Your task to perform on an android device: open app "Microsoft Outlook" (install if not already installed) and enter user name: "brand@gmail.com" and password: "persuasiveness" Image 0: 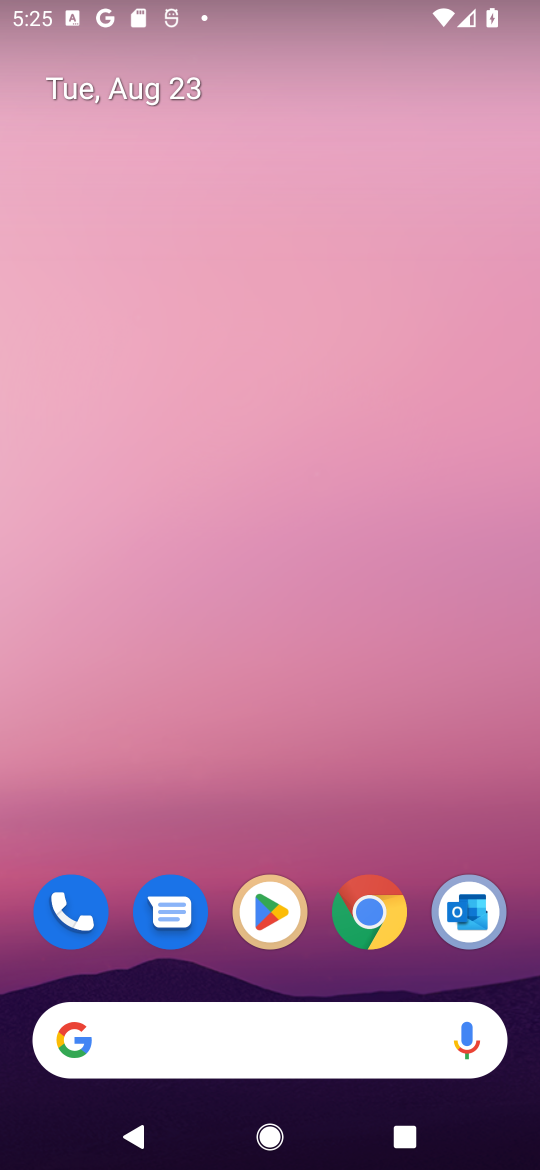
Step 0: drag from (205, 859) to (209, 278)
Your task to perform on an android device: open app "Microsoft Outlook" (install if not already installed) and enter user name: "brand@gmail.com" and password: "persuasiveness" Image 1: 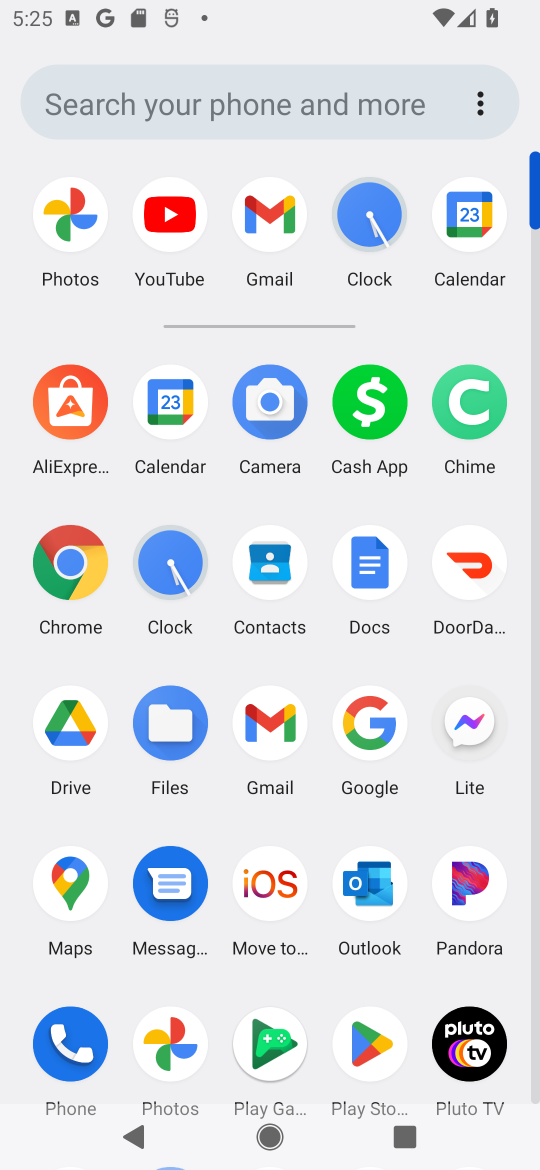
Step 1: click (386, 1039)
Your task to perform on an android device: open app "Microsoft Outlook" (install if not already installed) and enter user name: "brand@gmail.com" and password: "persuasiveness" Image 2: 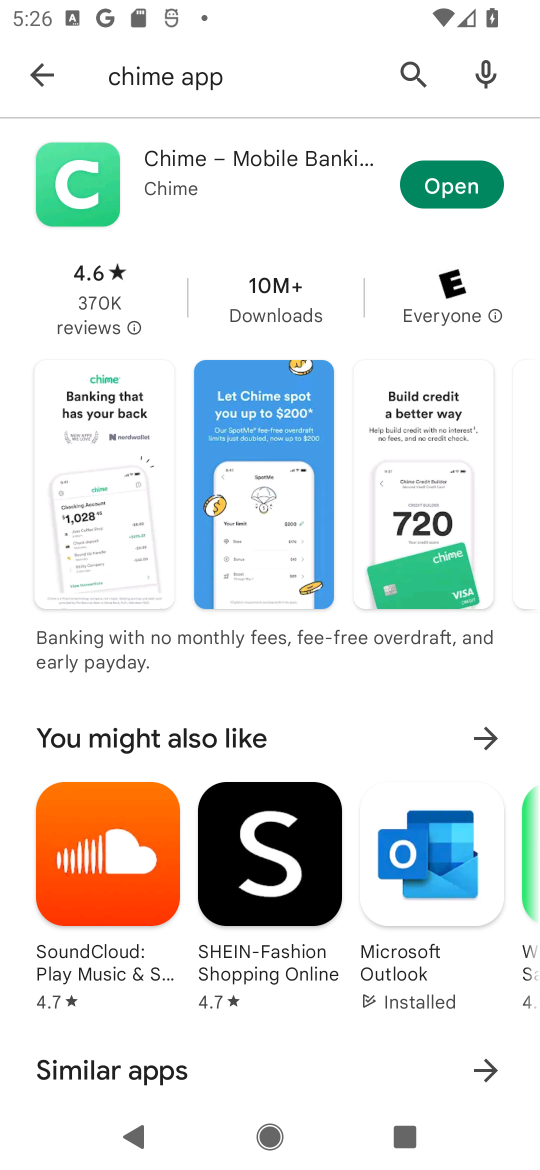
Step 2: click (31, 52)
Your task to perform on an android device: open app "Microsoft Outlook" (install if not already installed) and enter user name: "brand@gmail.com" and password: "persuasiveness" Image 3: 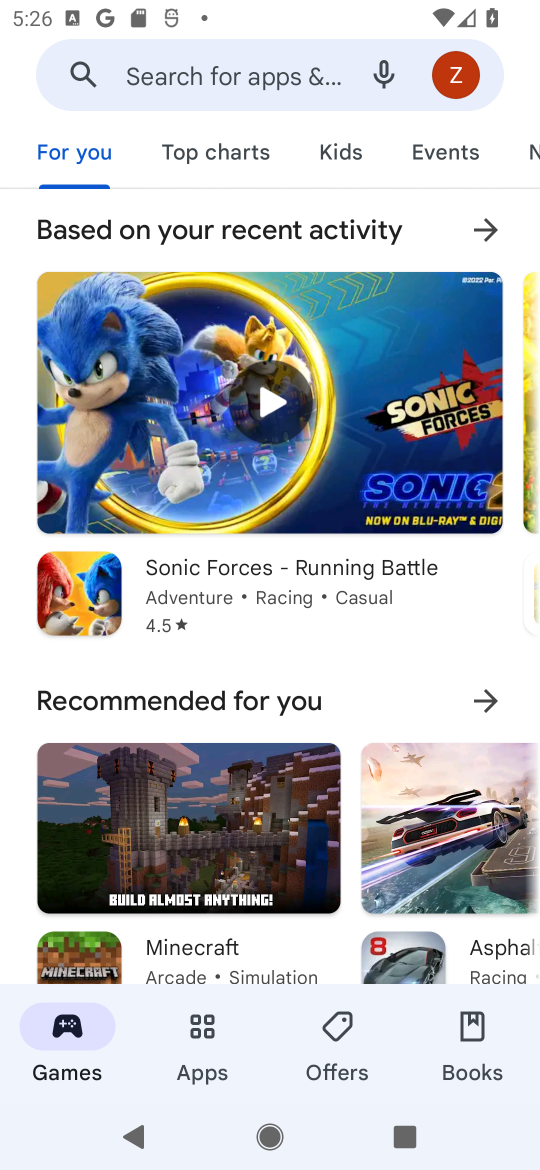
Step 3: click (142, 70)
Your task to perform on an android device: open app "Microsoft Outlook" (install if not already installed) and enter user name: "brand@gmail.com" and password: "persuasiveness" Image 4: 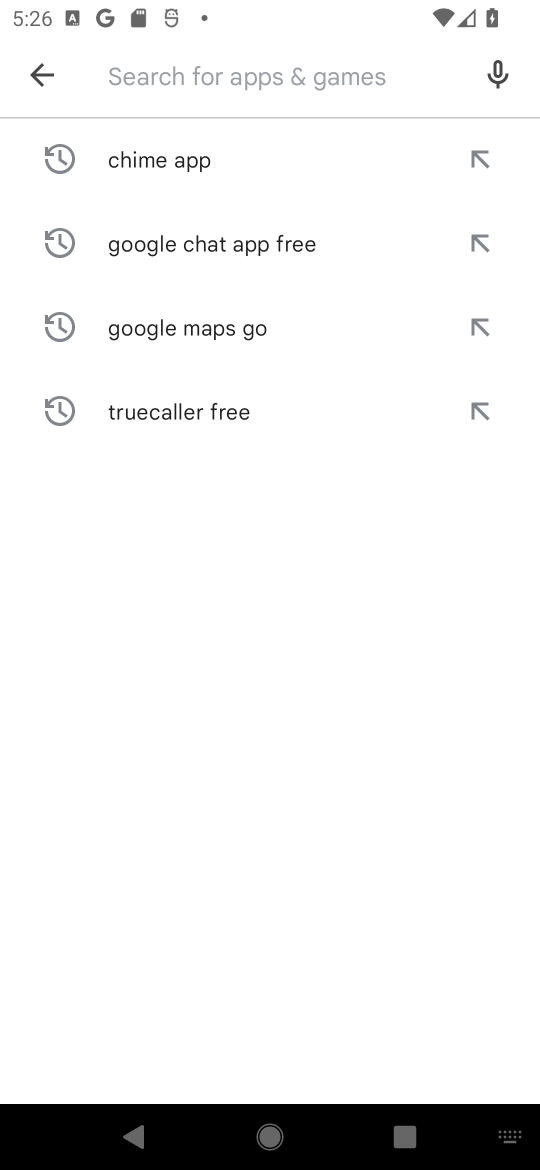
Step 4: click (194, 78)
Your task to perform on an android device: open app "Microsoft Outlook" (install if not already installed) and enter user name: "brand@gmail.com" and password: "persuasiveness" Image 5: 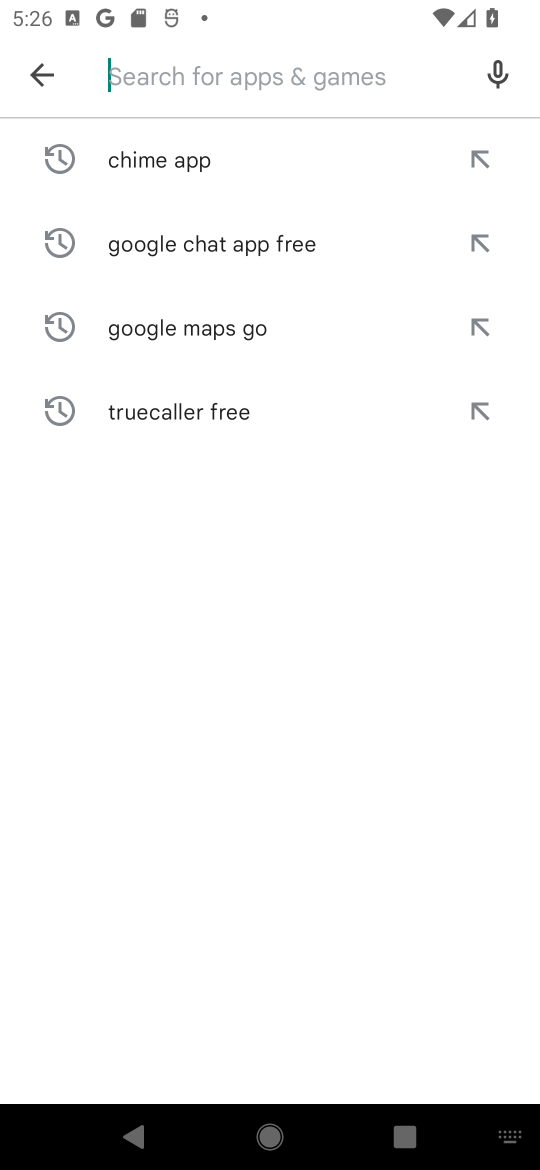
Step 5: type "Microsoft Outlook "
Your task to perform on an android device: open app "Microsoft Outlook" (install if not already installed) and enter user name: "brand@gmail.com" and password: "persuasiveness" Image 6: 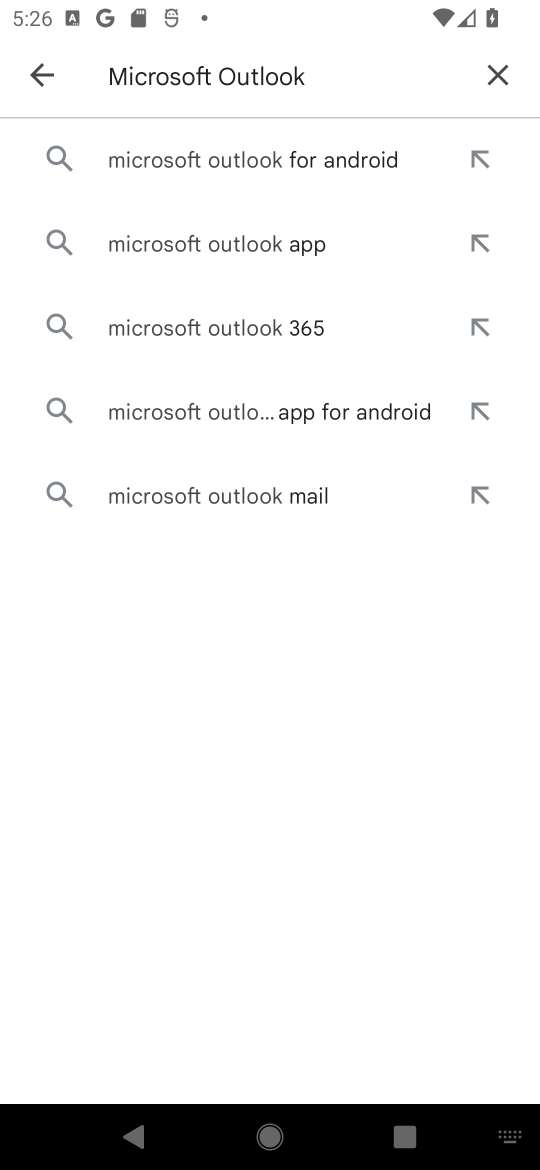
Step 6: click (197, 153)
Your task to perform on an android device: open app "Microsoft Outlook" (install if not already installed) and enter user name: "brand@gmail.com" and password: "persuasiveness" Image 7: 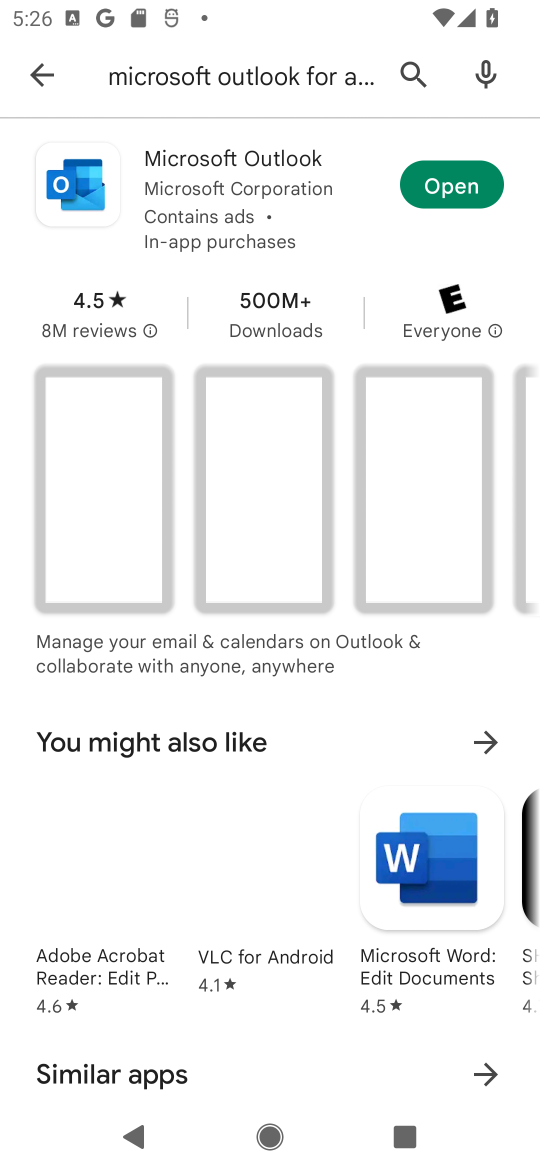
Step 7: click (426, 180)
Your task to perform on an android device: open app "Microsoft Outlook" (install if not already installed) and enter user name: "brand@gmail.com" and password: "persuasiveness" Image 8: 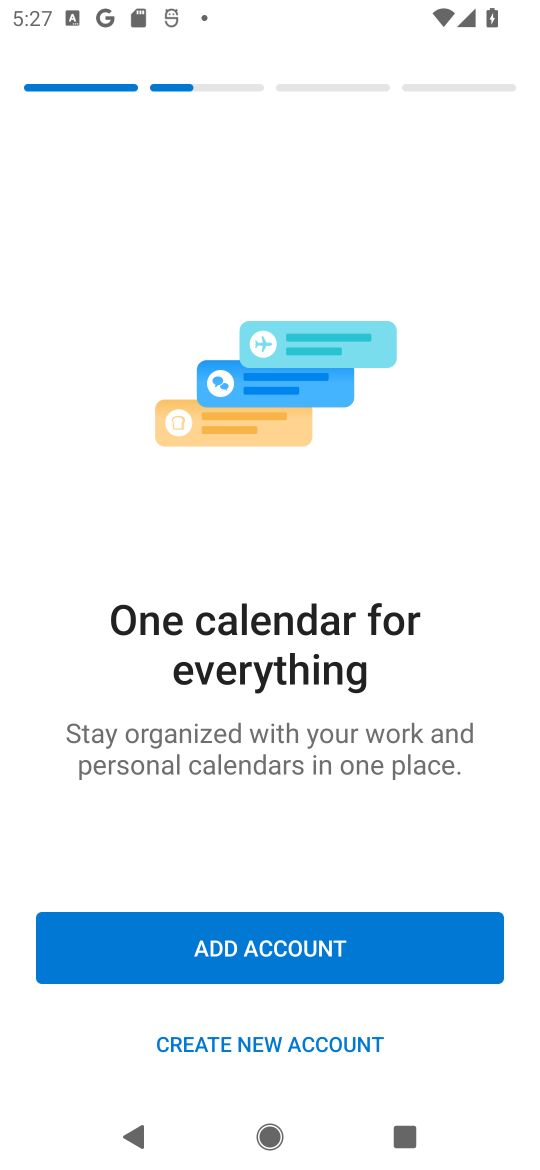
Step 8: task complete